Your task to perform on an android device: open chrome and create a bookmark for the current page Image 0: 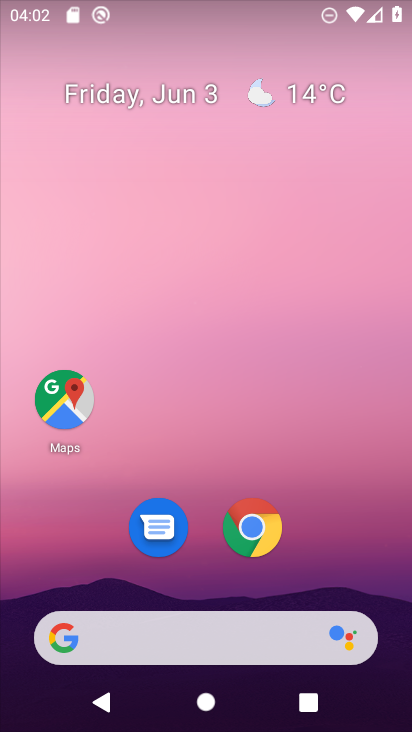
Step 0: click (249, 529)
Your task to perform on an android device: open chrome and create a bookmark for the current page Image 1: 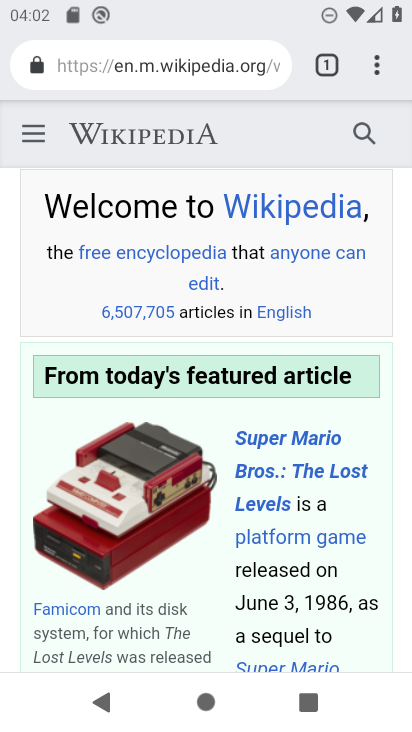
Step 1: click (376, 59)
Your task to perform on an android device: open chrome and create a bookmark for the current page Image 2: 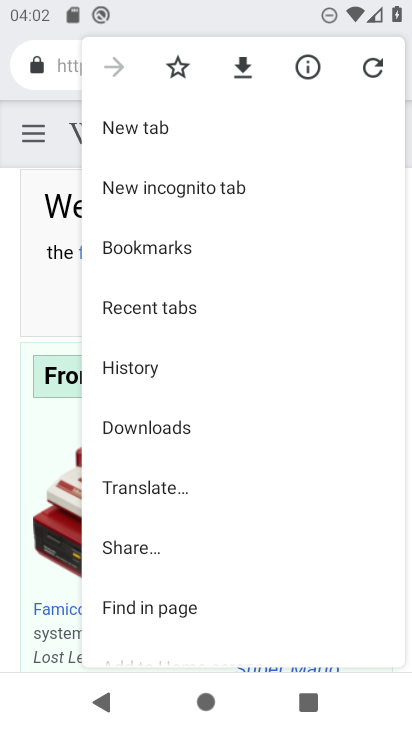
Step 2: click (176, 68)
Your task to perform on an android device: open chrome and create a bookmark for the current page Image 3: 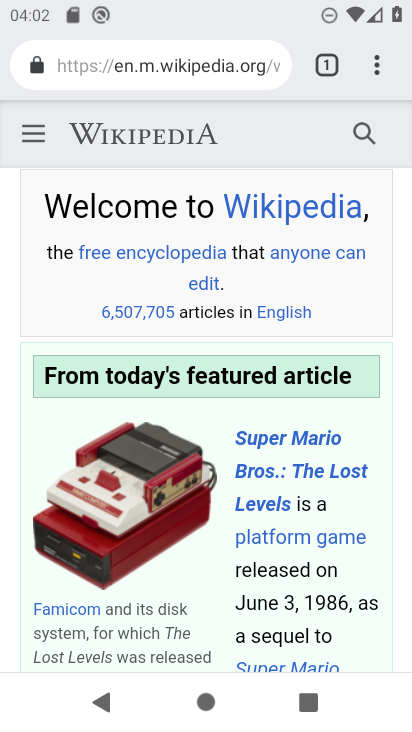
Step 3: task complete